Your task to perform on an android device: turn on the 12-hour format for clock Image 0: 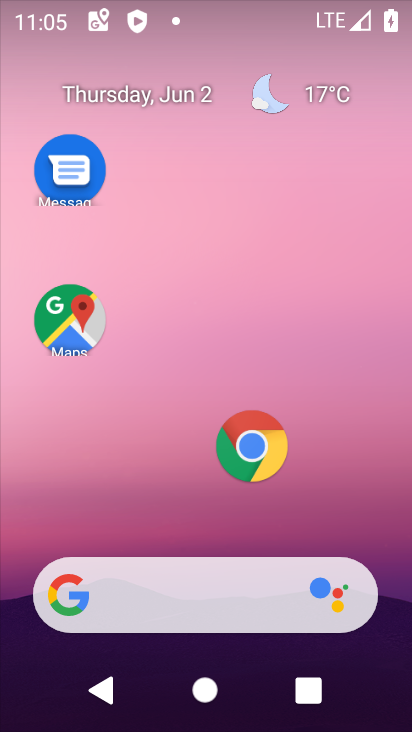
Step 0: press home button
Your task to perform on an android device: turn on the 12-hour format for clock Image 1: 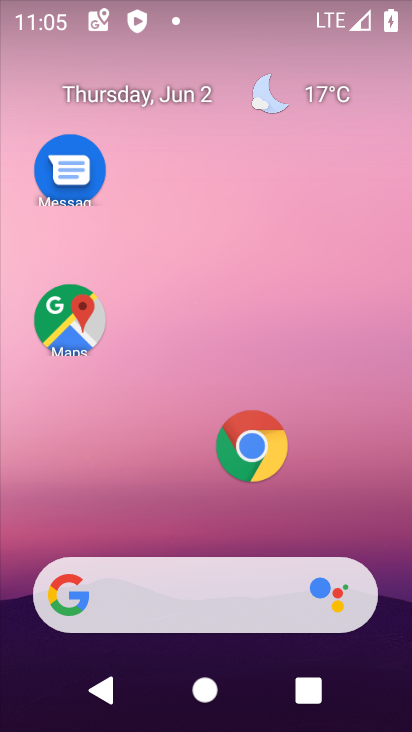
Step 1: drag from (237, 514) to (225, 45)
Your task to perform on an android device: turn on the 12-hour format for clock Image 2: 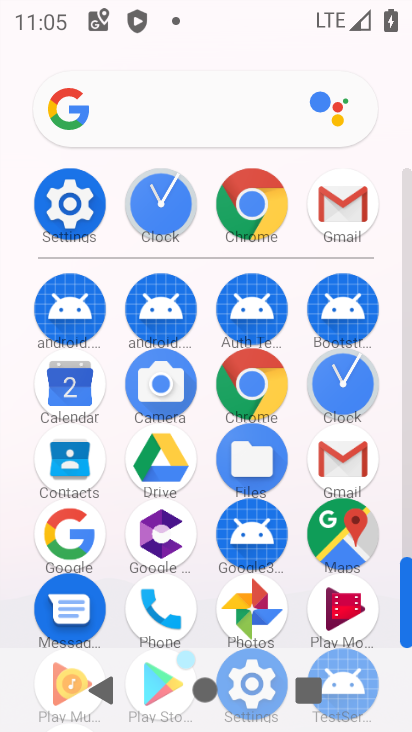
Step 2: drag from (402, 617) to (277, 386)
Your task to perform on an android device: turn on the 12-hour format for clock Image 3: 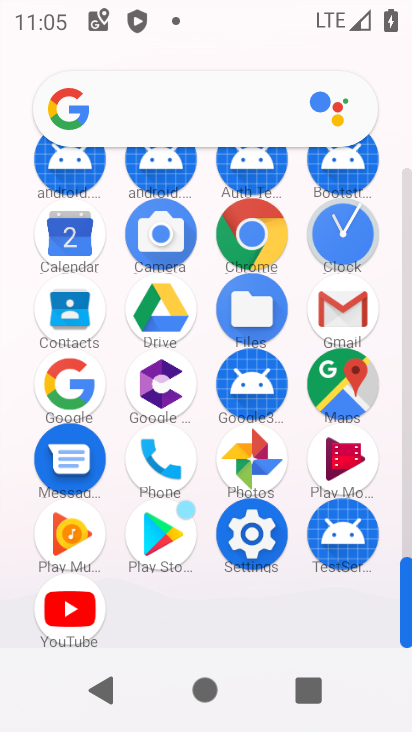
Step 3: click (346, 244)
Your task to perform on an android device: turn on the 12-hour format for clock Image 4: 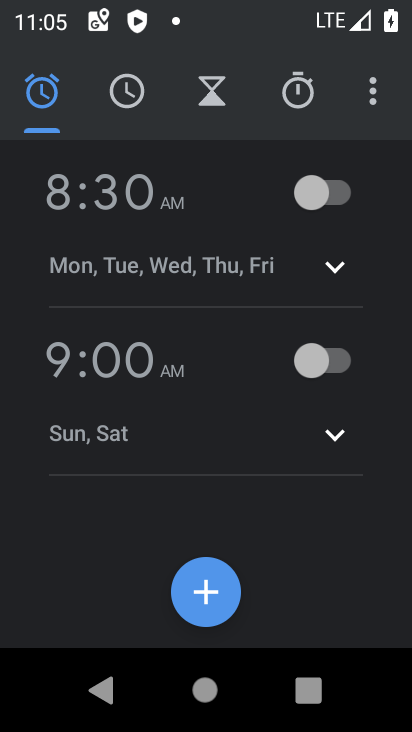
Step 4: click (367, 80)
Your task to perform on an android device: turn on the 12-hour format for clock Image 5: 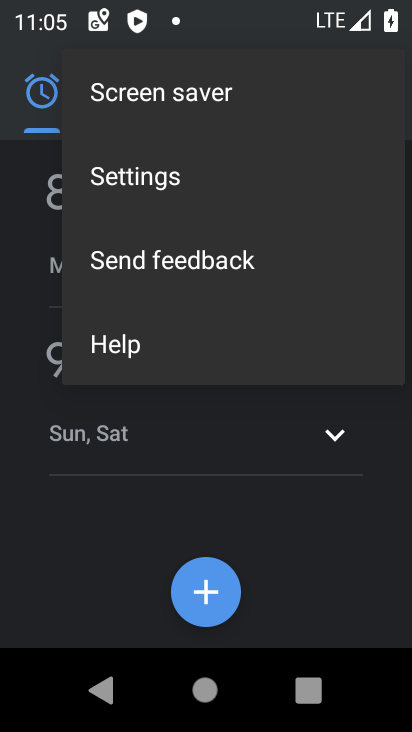
Step 5: click (227, 169)
Your task to perform on an android device: turn on the 12-hour format for clock Image 6: 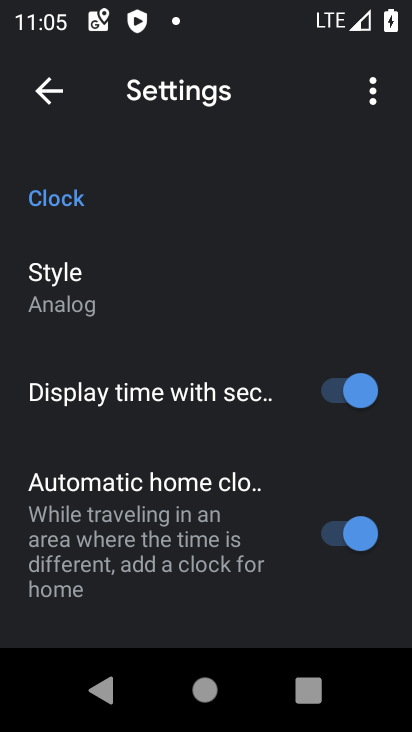
Step 6: drag from (192, 506) to (214, 202)
Your task to perform on an android device: turn on the 12-hour format for clock Image 7: 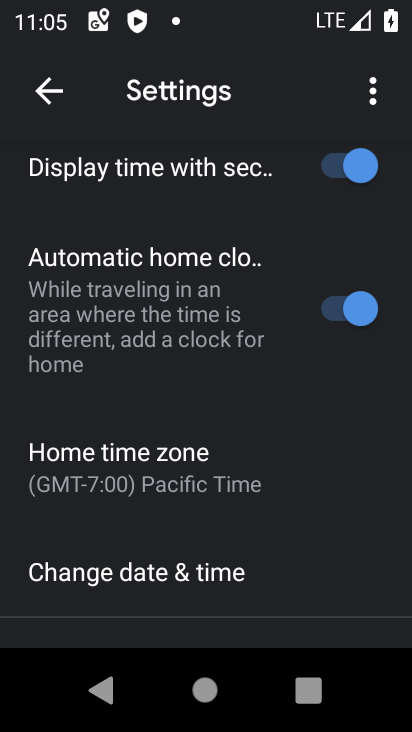
Step 7: click (172, 551)
Your task to perform on an android device: turn on the 12-hour format for clock Image 8: 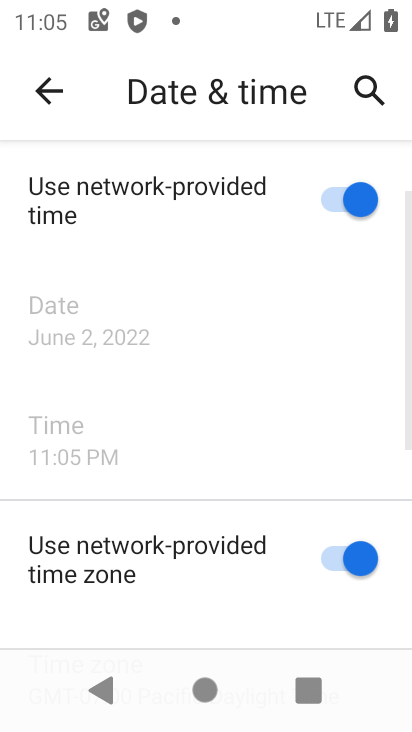
Step 8: drag from (172, 551) to (215, 113)
Your task to perform on an android device: turn on the 12-hour format for clock Image 9: 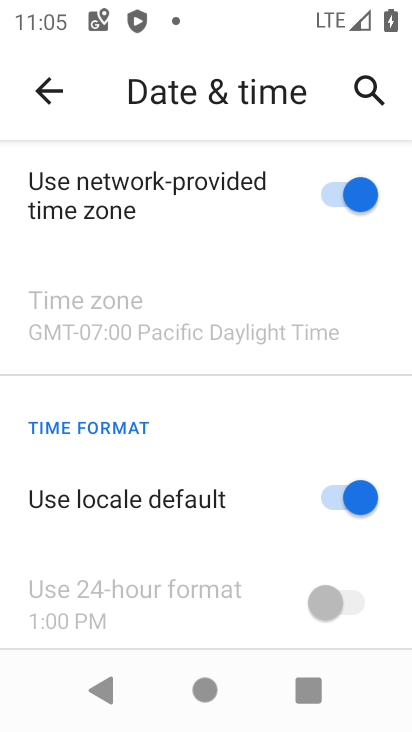
Step 9: drag from (196, 494) to (196, 306)
Your task to perform on an android device: turn on the 12-hour format for clock Image 10: 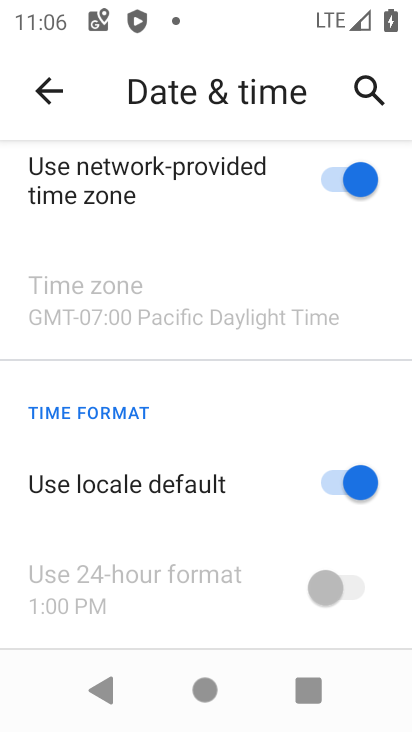
Step 10: click (229, 492)
Your task to perform on an android device: turn on the 12-hour format for clock Image 11: 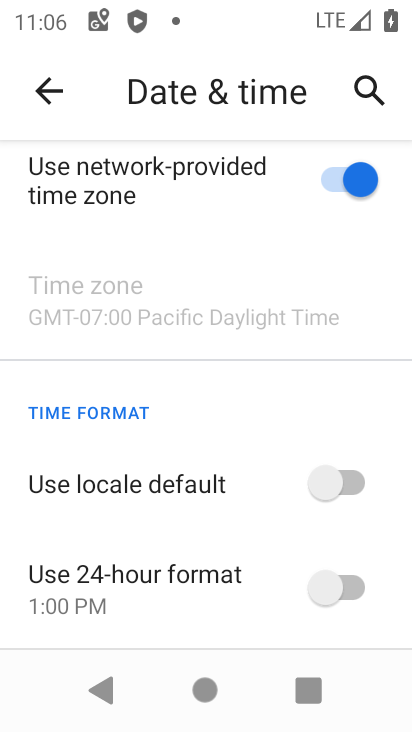
Step 11: click (227, 600)
Your task to perform on an android device: turn on the 12-hour format for clock Image 12: 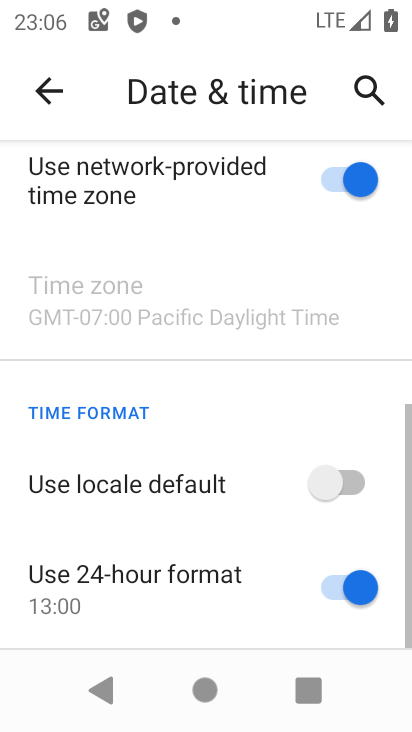
Step 12: task complete